Your task to perform on an android device: turn off location history Image 0: 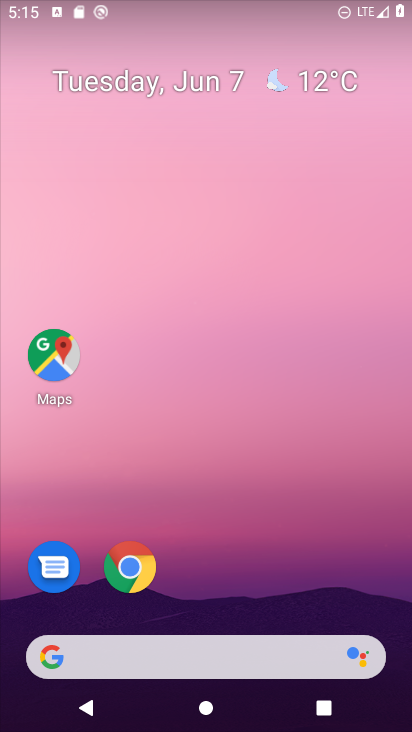
Step 0: drag from (174, 664) to (224, 103)
Your task to perform on an android device: turn off location history Image 1: 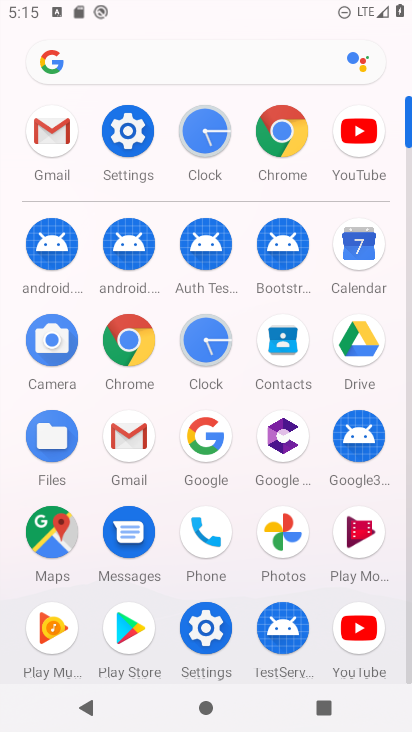
Step 1: click (135, 135)
Your task to perform on an android device: turn off location history Image 2: 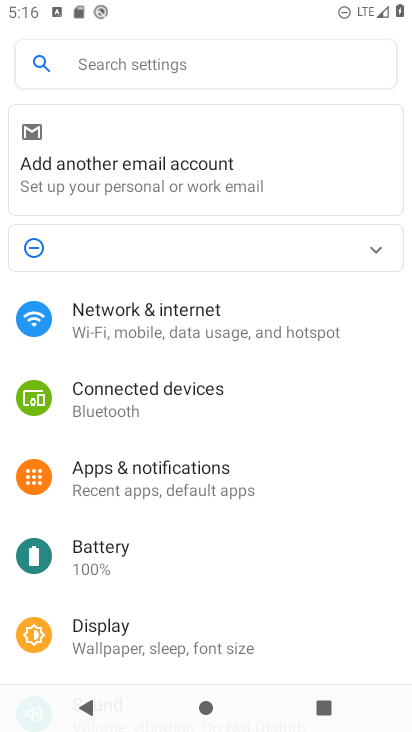
Step 2: drag from (232, 627) to (226, 270)
Your task to perform on an android device: turn off location history Image 3: 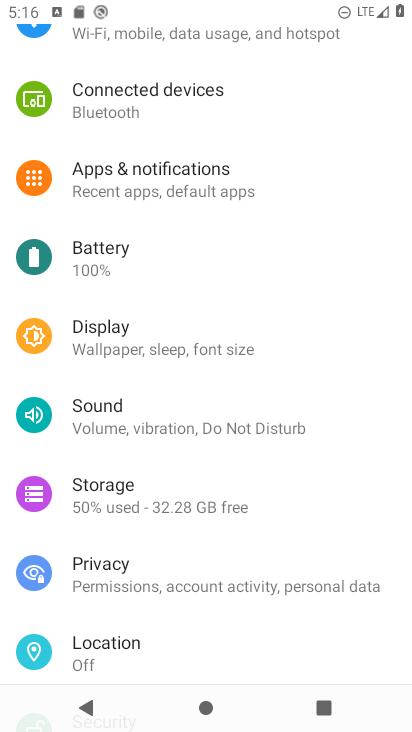
Step 3: click (190, 660)
Your task to perform on an android device: turn off location history Image 4: 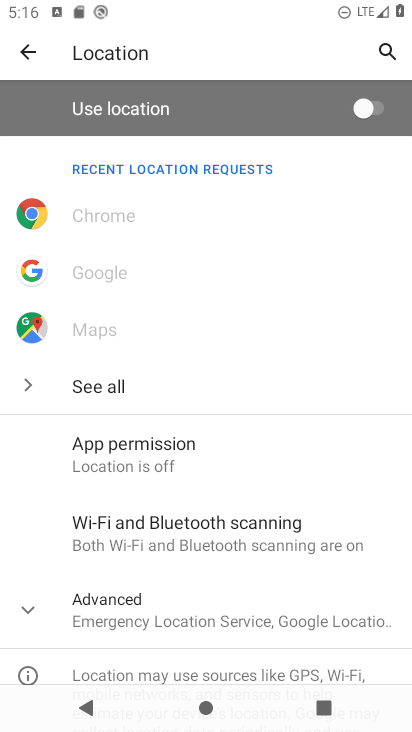
Step 4: drag from (181, 607) to (205, 319)
Your task to perform on an android device: turn off location history Image 5: 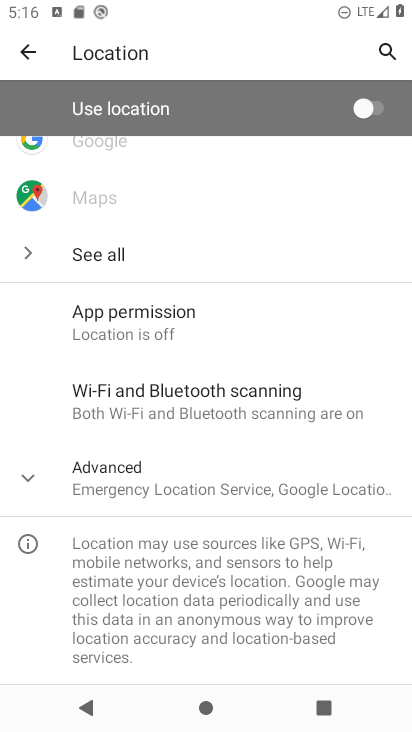
Step 5: click (200, 483)
Your task to perform on an android device: turn off location history Image 6: 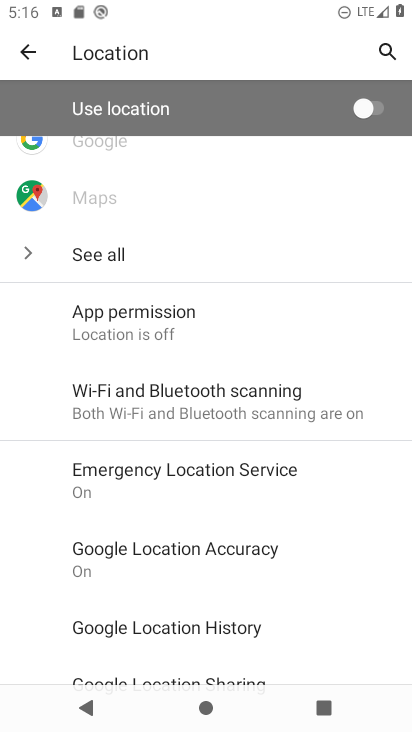
Step 6: click (250, 633)
Your task to perform on an android device: turn off location history Image 7: 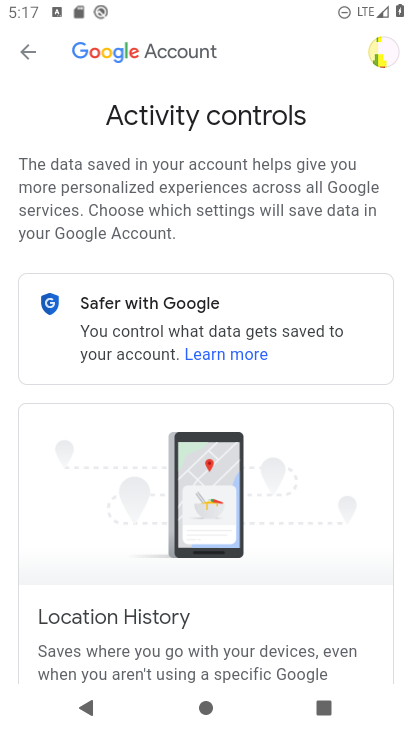
Step 7: drag from (209, 675) to (238, 255)
Your task to perform on an android device: turn off location history Image 8: 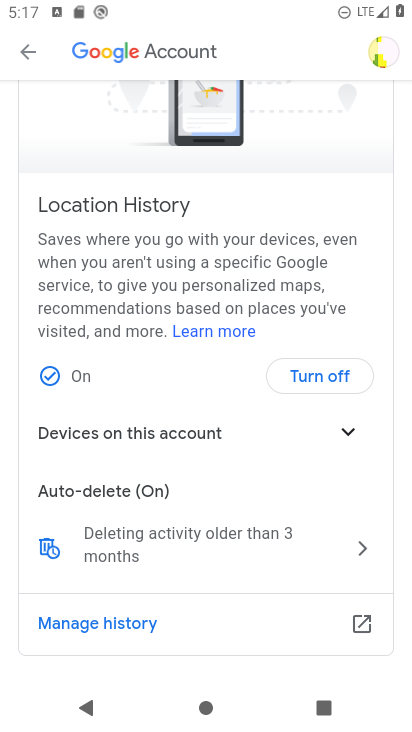
Step 8: click (300, 379)
Your task to perform on an android device: turn off location history Image 9: 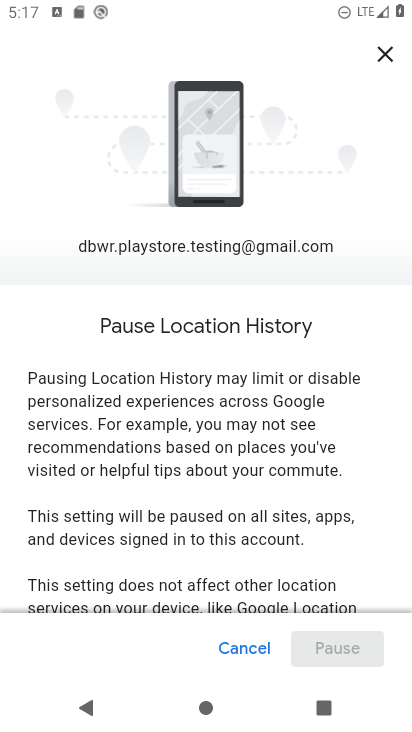
Step 9: drag from (331, 566) to (331, 119)
Your task to perform on an android device: turn off location history Image 10: 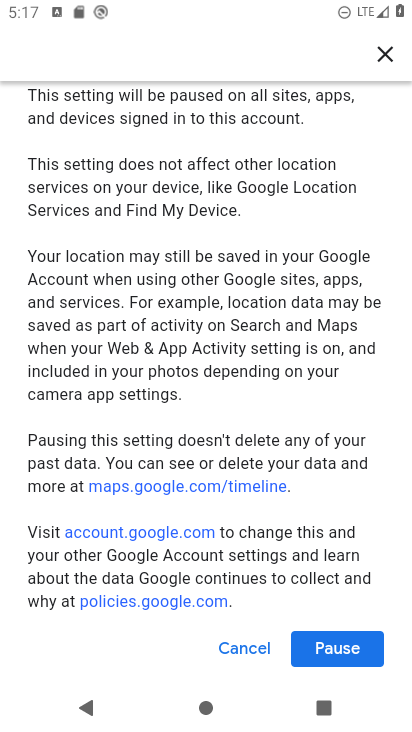
Step 10: drag from (348, 555) to (333, 243)
Your task to perform on an android device: turn off location history Image 11: 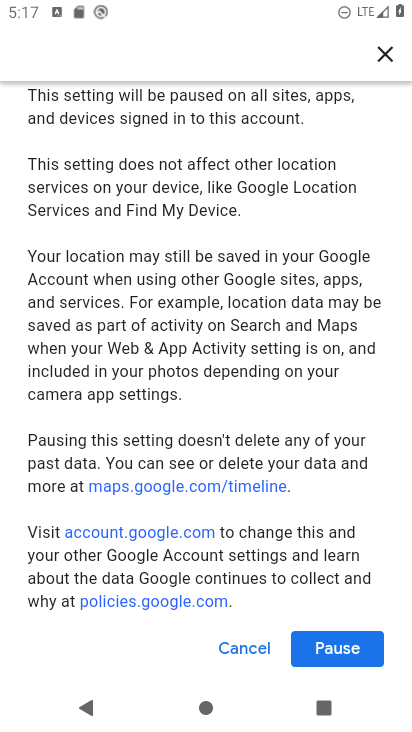
Step 11: click (369, 651)
Your task to perform on an android device: turn off location history Image 12: 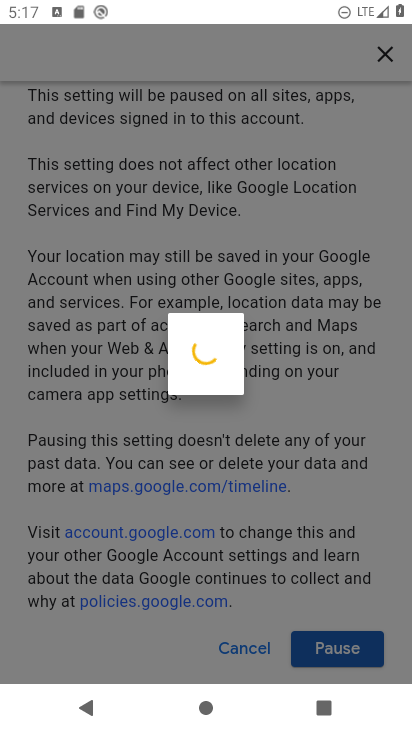
Step 12: click (369, 651)
Your task to perform on an android device: turn off location history Image 13: 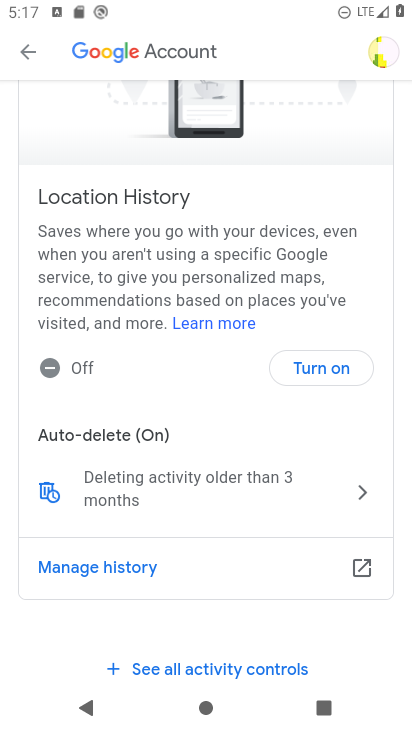
Step 13: task complete